Your task to perform on an android device: toggle location history Image 0: 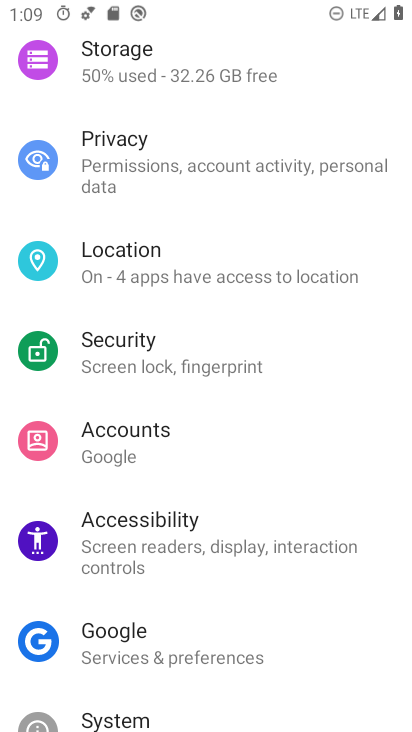
Step 0: click (123, 252)
Your task to perform on an android device: toggle location history Image 1: 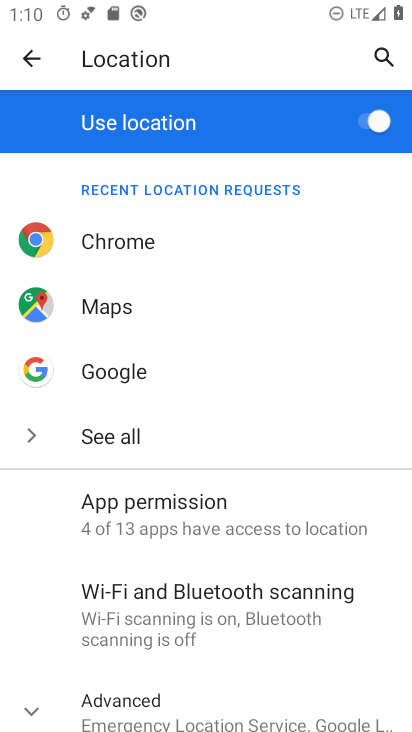
Step 1: drag from (209, 685) to (210, 213)
Your task to perform on an android device: toggle location history Image 2: 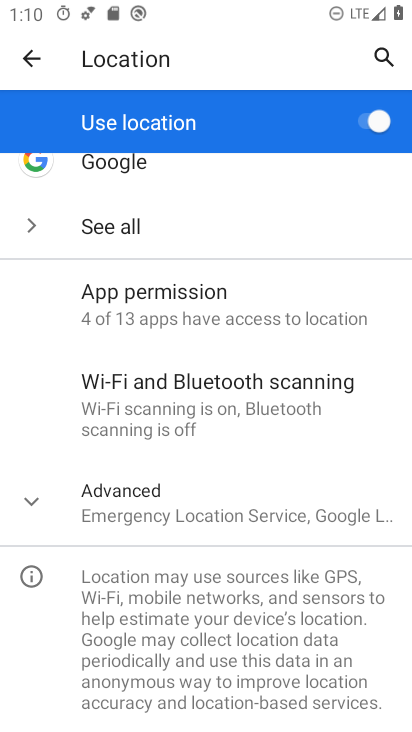
Step 2: click (114, 507)
Your task to perform on an android device: toggle location history Image 3: 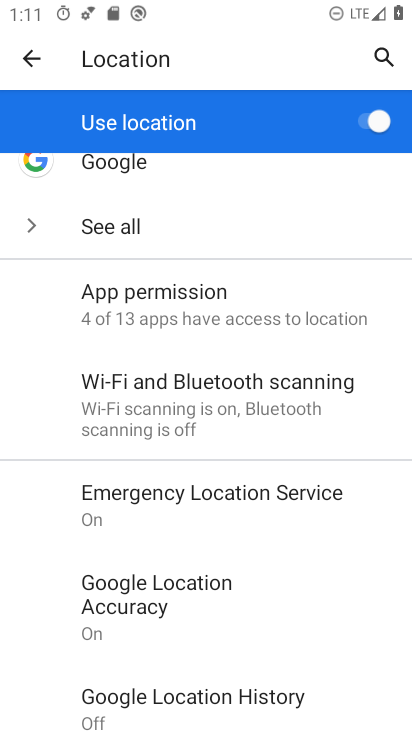
Step 3: drag from (142, 551) to (139, 412)
Your task to perform on an android device: toggle location history Image 4: 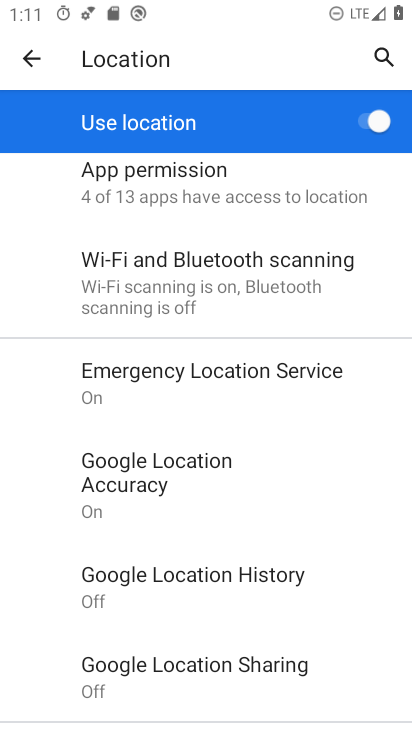
Step 4: click (191, 569)
Your task to perform on an android device: toggle location history Image 5: 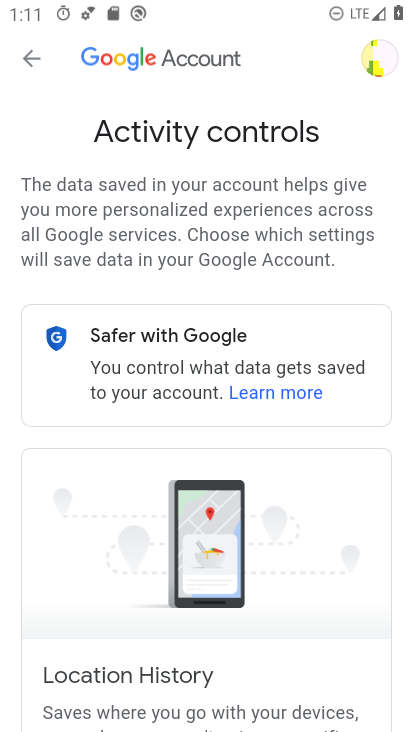
Step 5: drag from (234, 718) to (230, 181)
Your task to perform on an android device: toggle location history Image 6: 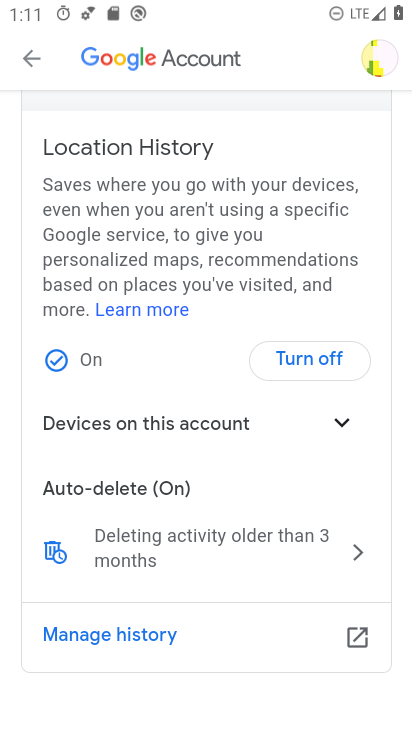
Step 6: click (320, 358)
Your task to perform on an android device: toggle location history Image 7: 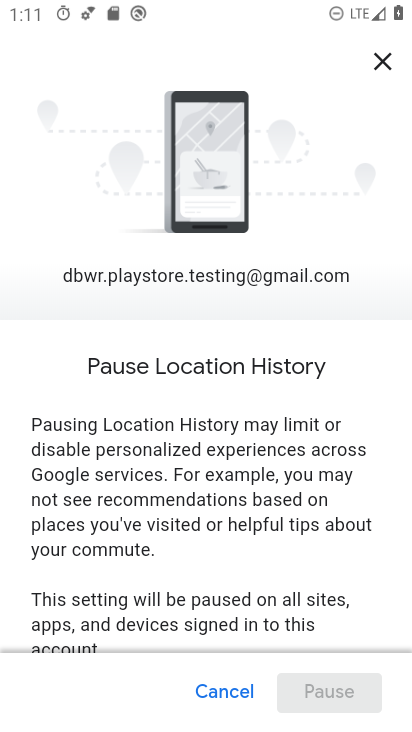
Step 7: drag from (250, 609) to (250, 111)
Your task to perform on an android device: toggle location history Image 8: 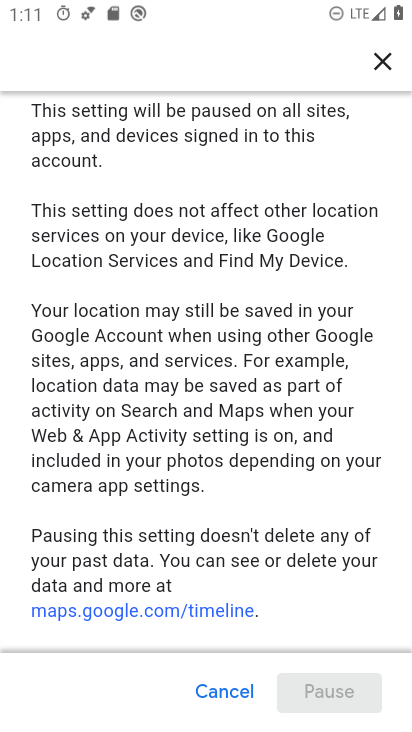
Step 8: drag from (293, 597) to (279, 139)
Your task to perform on an android device: toggle location history Image 9: 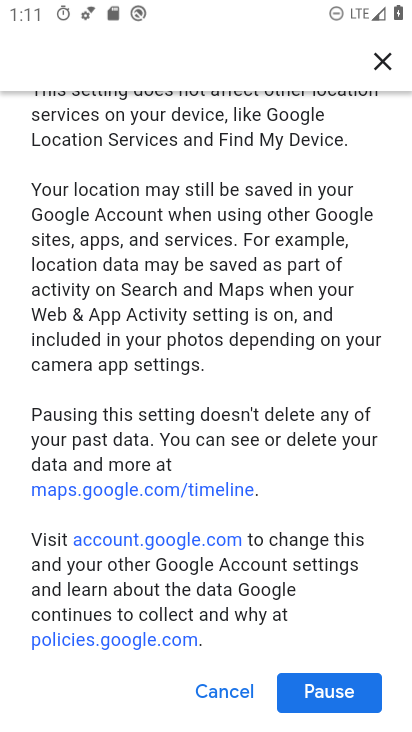
Step 9: click (337, 691)
Your task to perform on an android device: toggle location history Image 10: 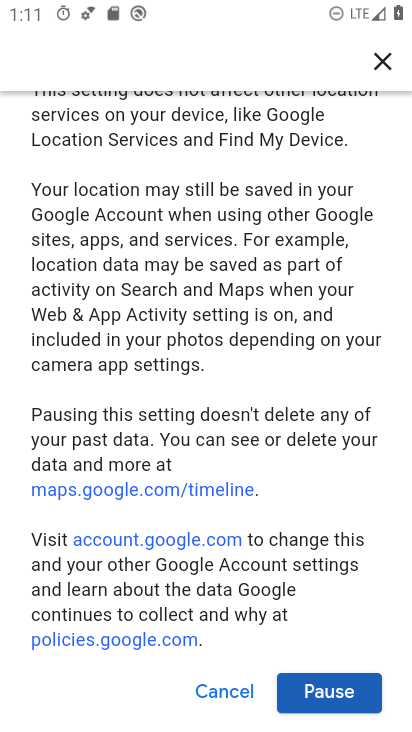
Step 10: click (338, 691)
Your task to perform on an android device: toggle location history Image 11: 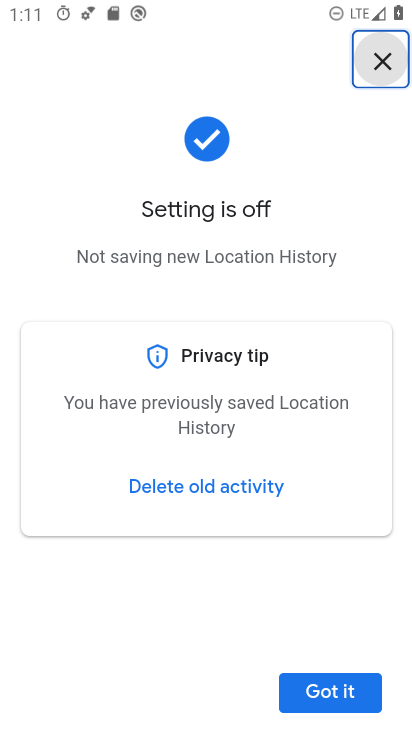
Step 11: task complete